Your task to perform on an android device: move a message to another label in the gmail app Image 0: 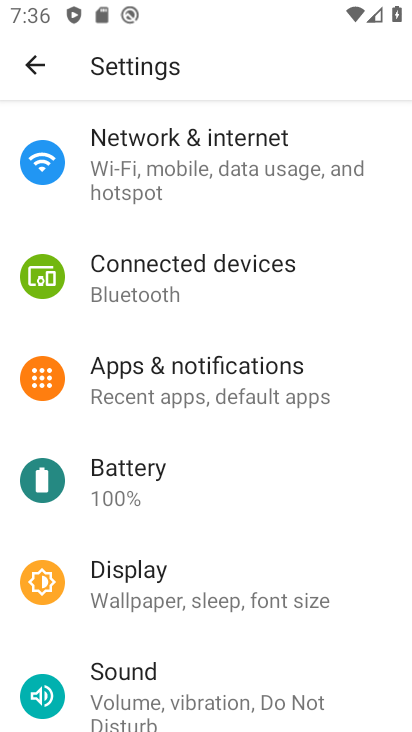
Step 0: press home button
Your task to perform on an android device: move a message to another label in the gmail app Image 1: 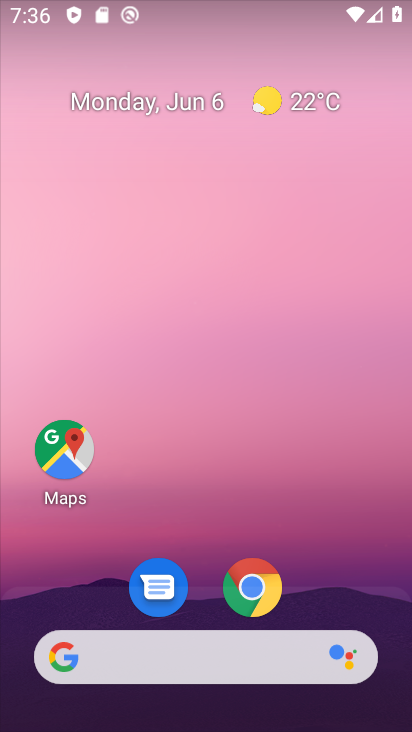
Step 1: drag from (307, 574) to (306, 194)
Your task to perform on an android device: move a message to another label in the gmail app Image 2: 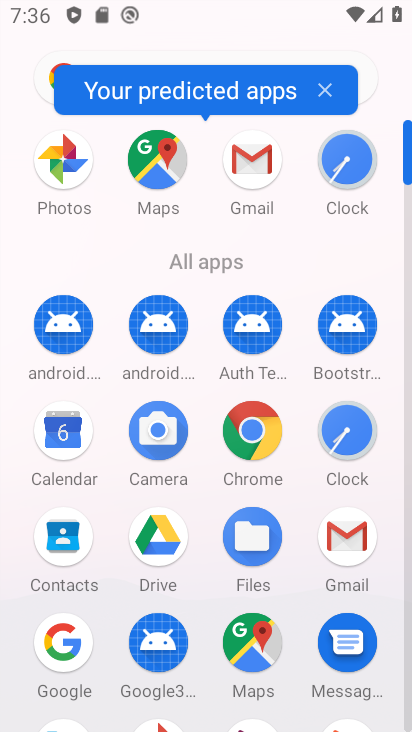
Step 2: click (341, 524)
Your task to perform on an android device: move a message to another label in the gmail app Image 3: 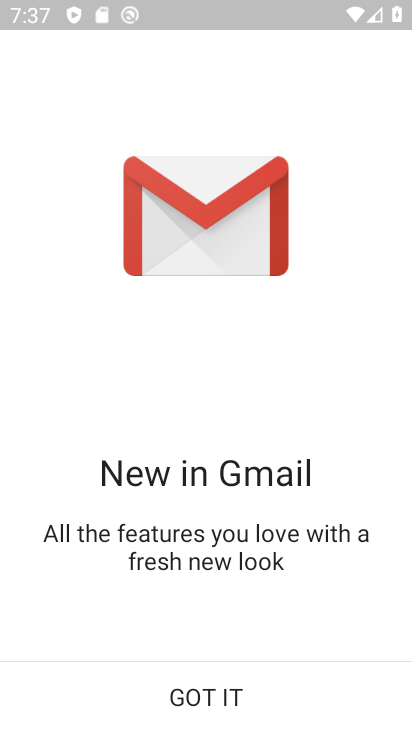
Step 3: click (193, 686)
Your task to perform on an android device: move a message to another label in the gmail app Image 4: 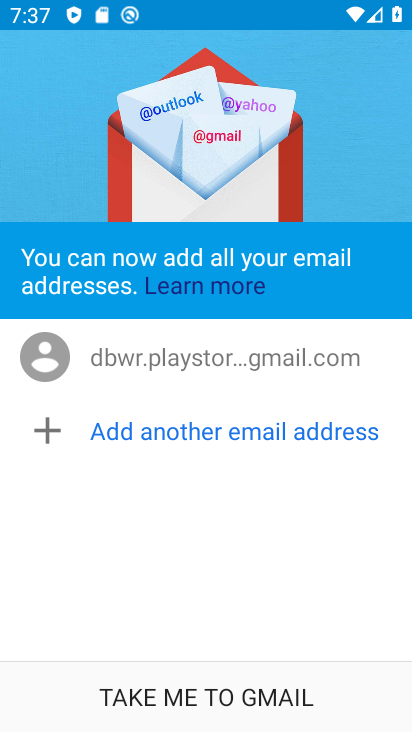
Step 4: click (193, 686)
Your task to perform on an android device: move a message to another label in the gmail app Image 5: 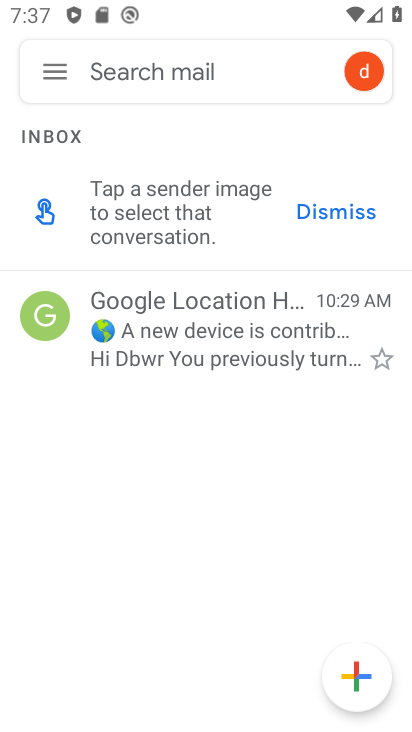
Step 5: click (239, 319)
Your task to perform on an android device: move a message to another label in the gmail app Image 6: 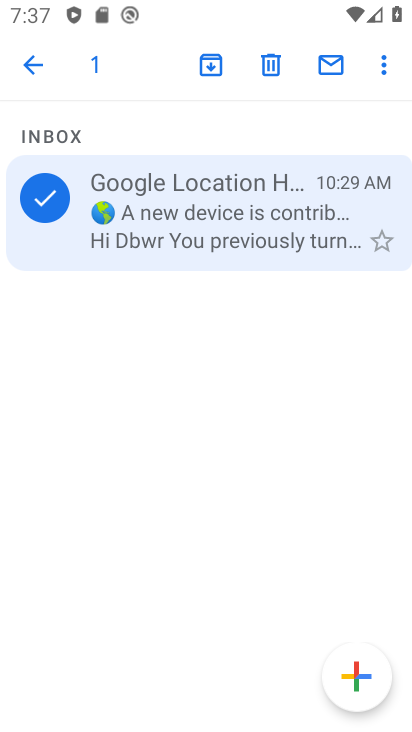
Step 6: click (370, 77)
Your task to perform on an android device: move a message to another label in the gmail app Image 7: 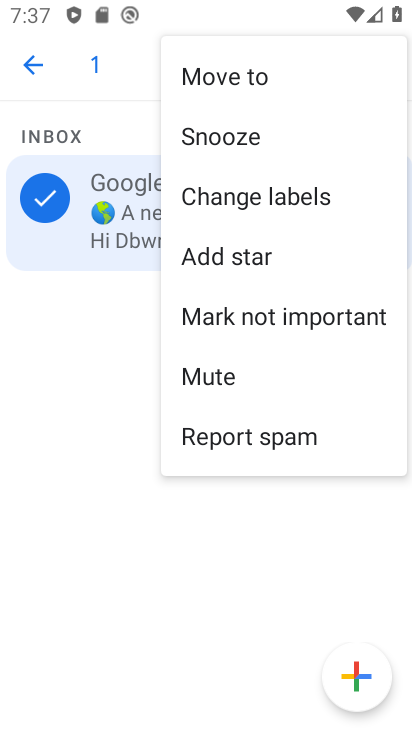
Step 7: click (295, 201)
Your task to perform on an android device: move a message to another label in the gmail app Image 8: 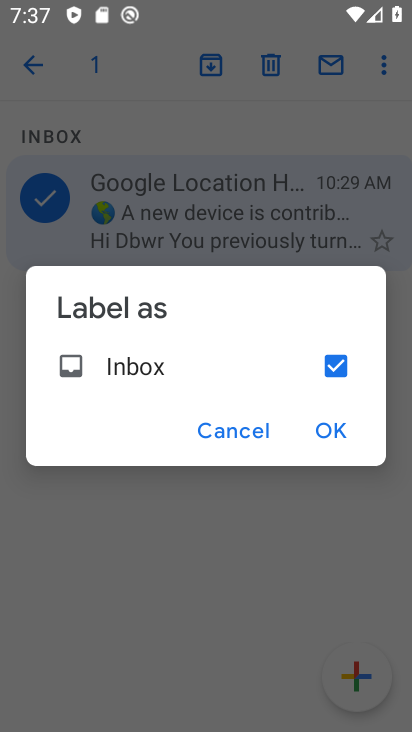
Step 8: click (341, 369)
Your task to perform on an android device: move a message to another label in the gmail app Image 9: 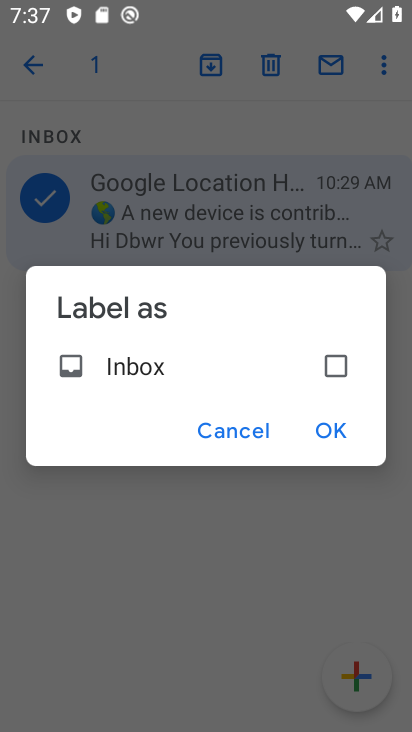
Step 9: click (334, 434)
Your task to perform on an android device: move a message to another label in the gmail app Image 10: 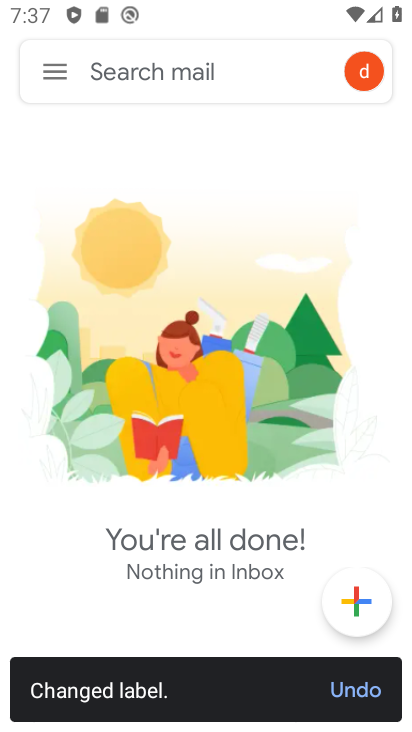
Step 10: task complete